Your task to perform on an android device: uninstall "Google Duo" Image 0: 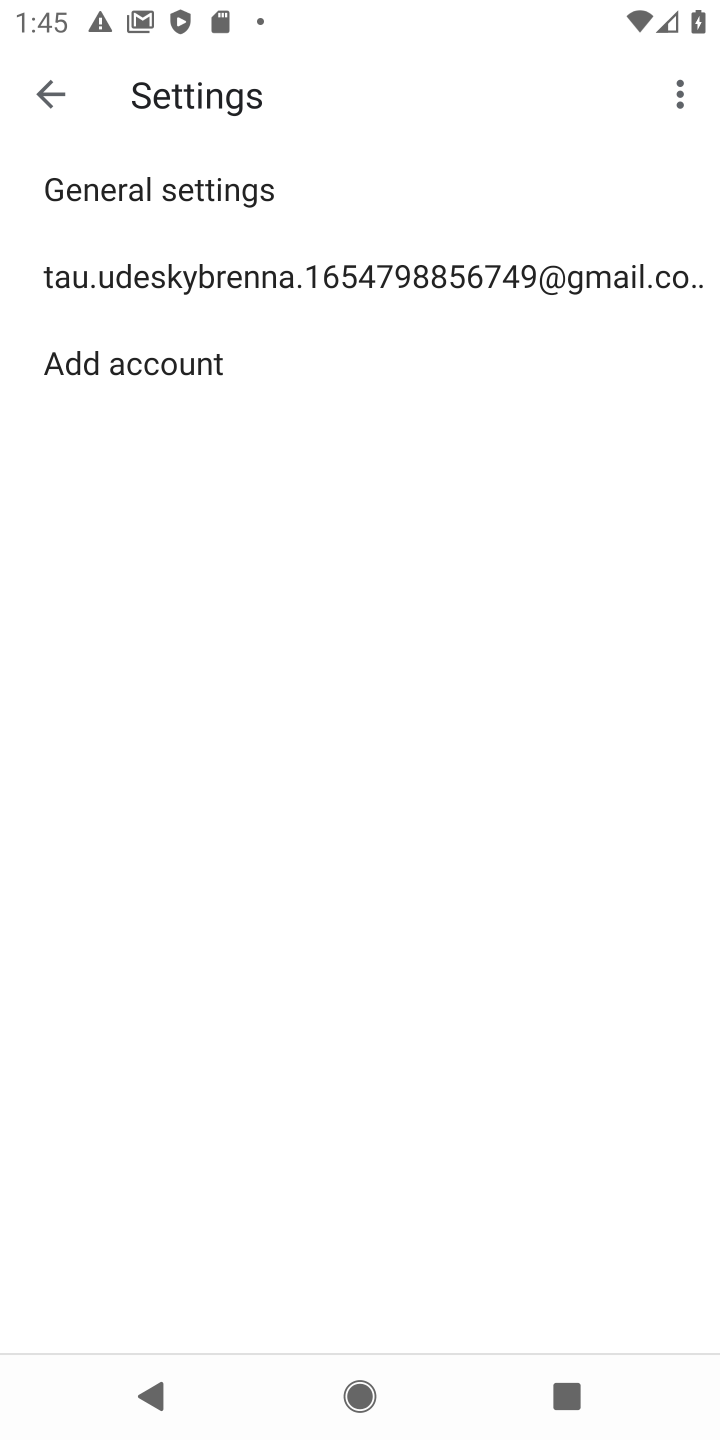
Step 0: press home button
Your task to perform on an android device: uninstall "Google Duo" Image 1: 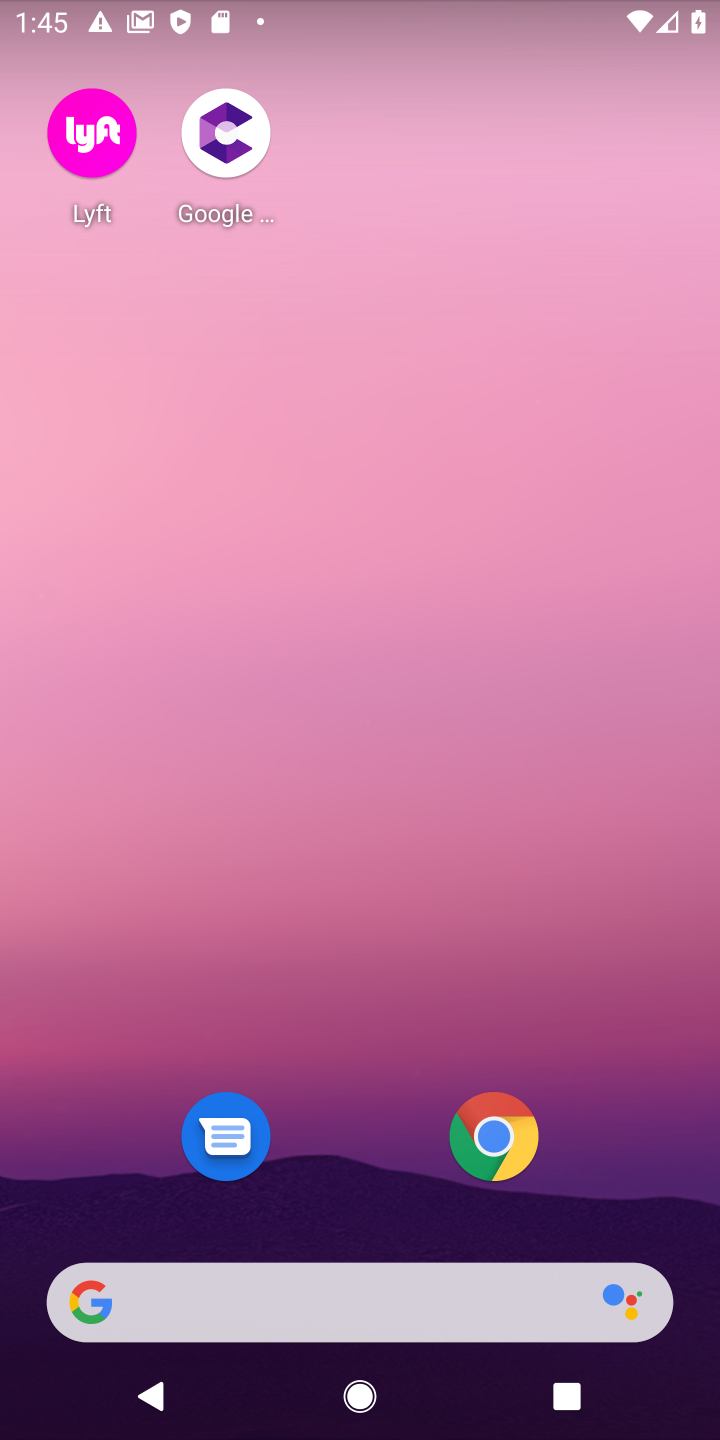
Step 1: drag from (357, 1062) to (359, 228)
Your task to perform on an android device: uninstall "Google Duo" Image 2: 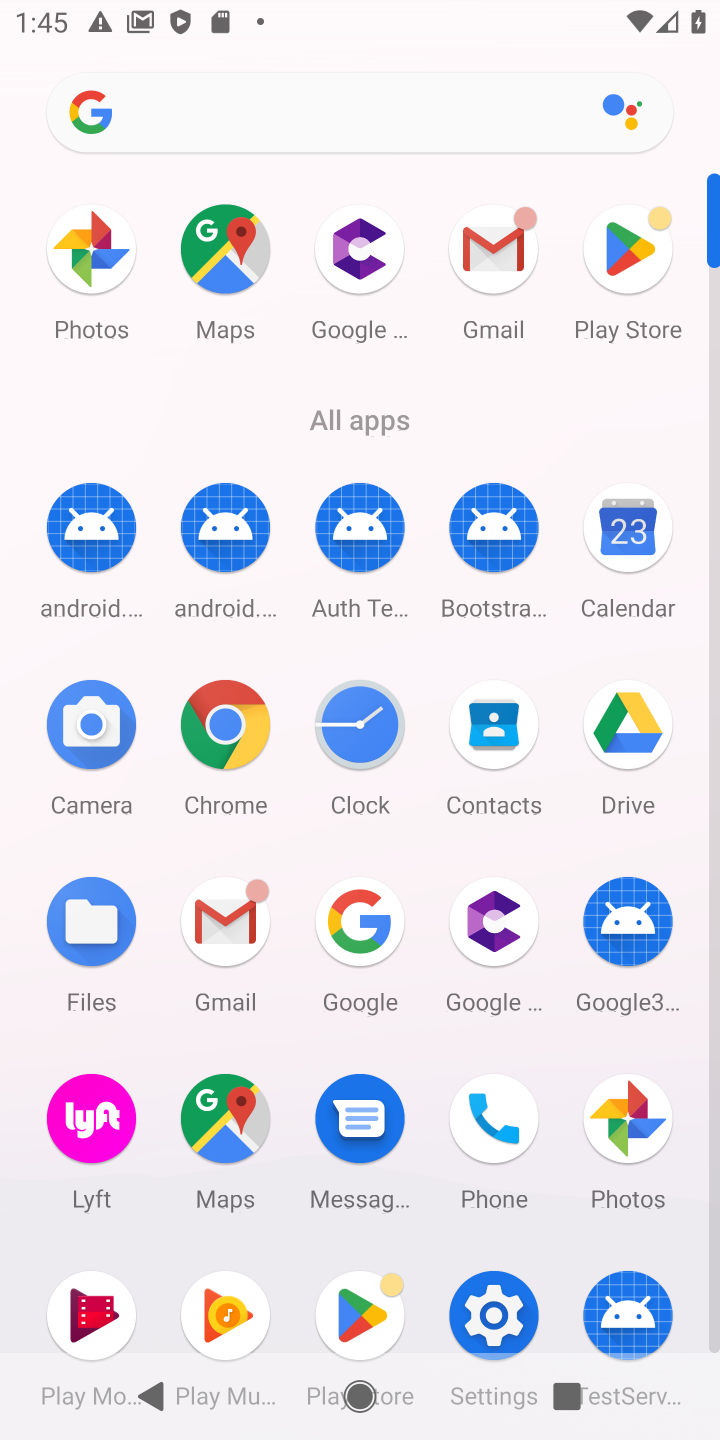
Step 2: click (629, 269)
Your task to perform on an android device: uninstall "Google Duo" Image 3: 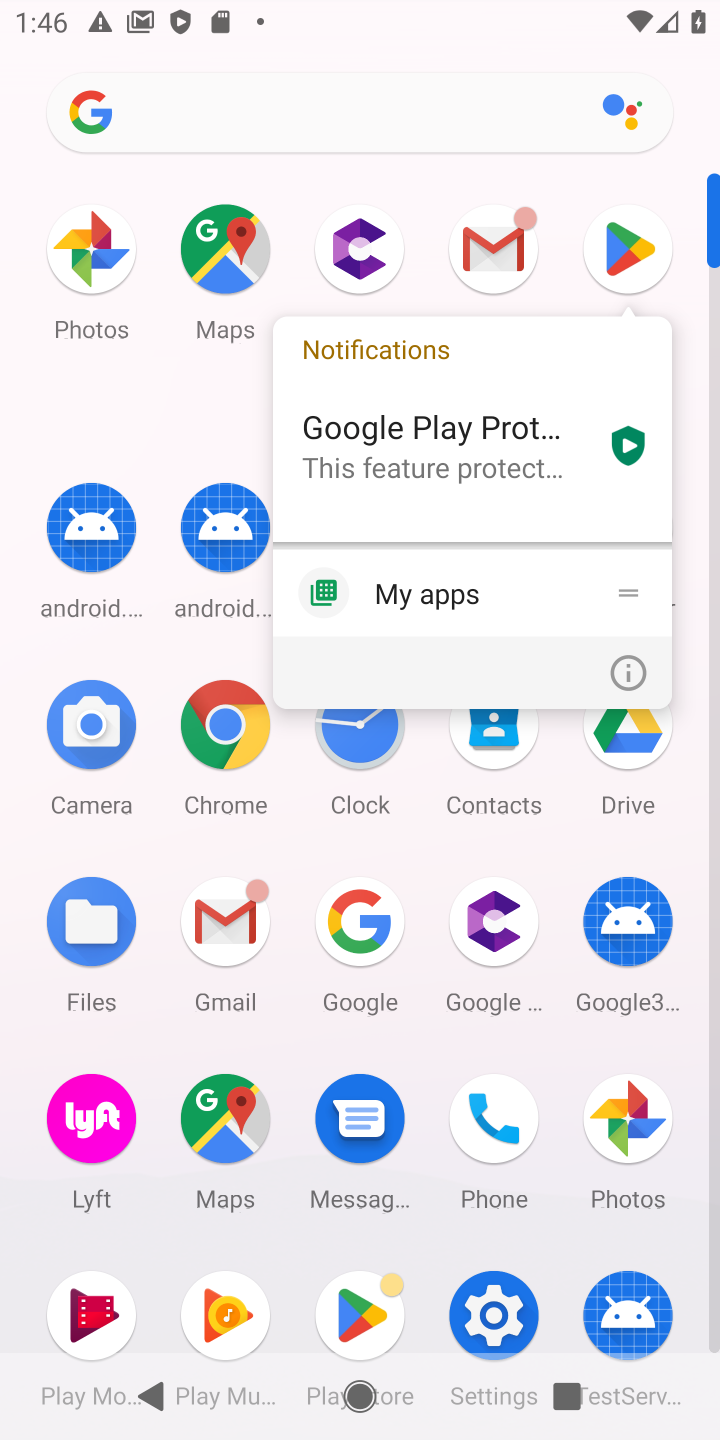
Step 3: click (587, 241)
Your task to perform on an android device: uninstall "Google Duo" Image 4: 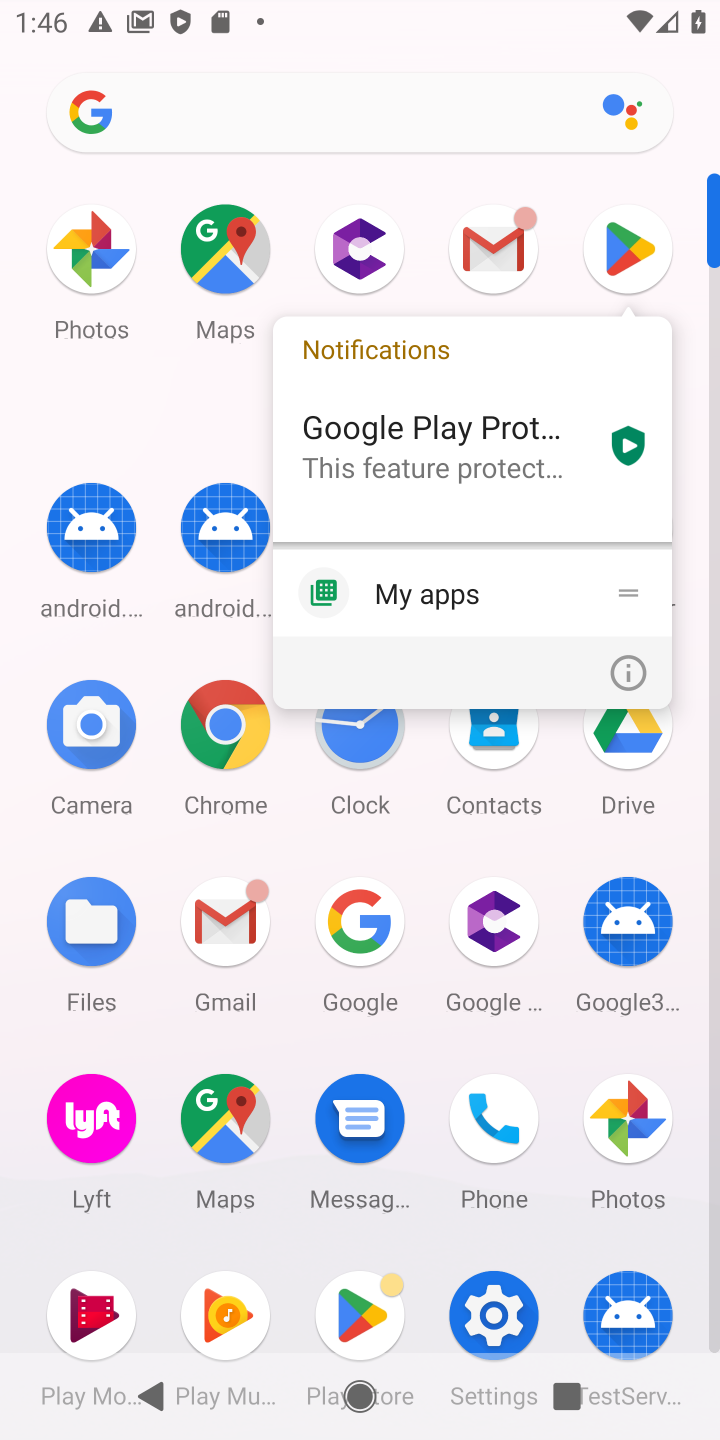
Step 4: click (613, 251)
Your task to perform on an android device: uninstall "Google Duo" Image 5: 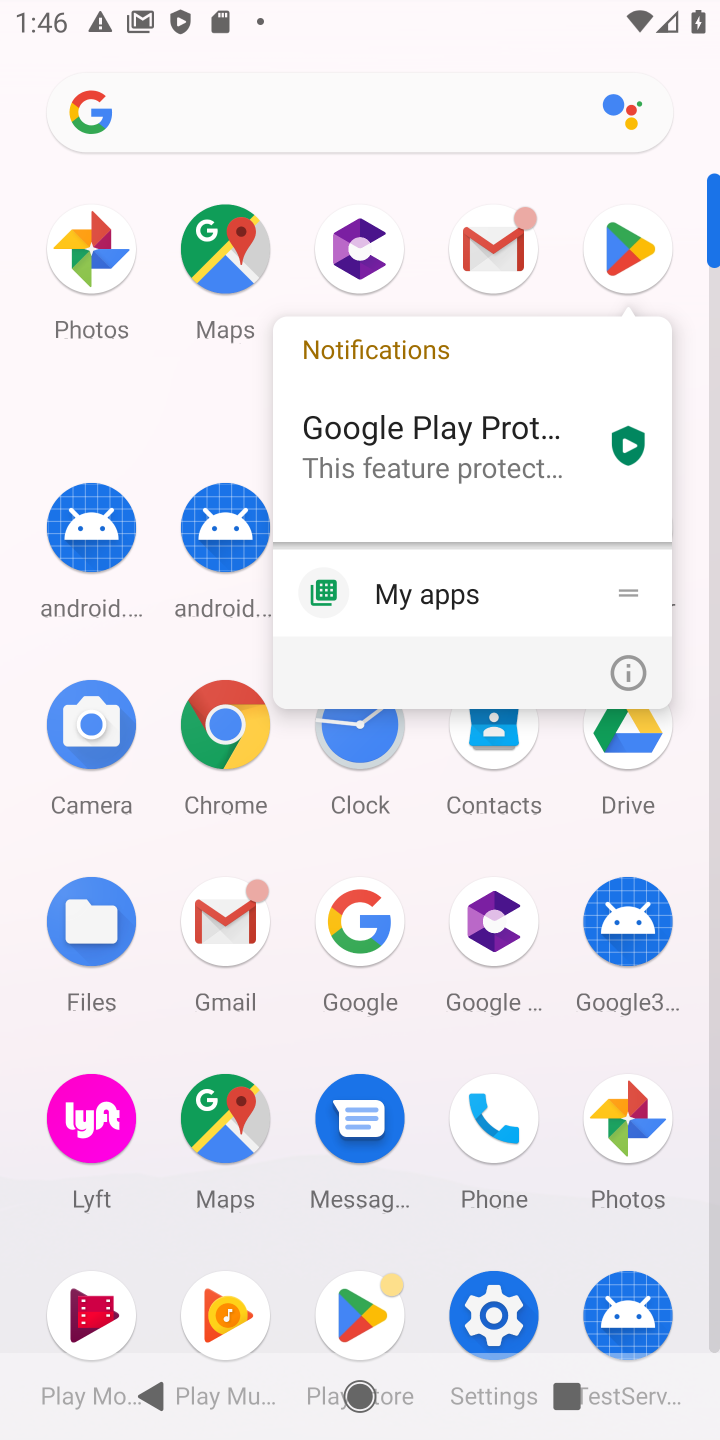
Step 5: click (622, 246)
Your task to perform on an android device: uninstall "Google Duo" Image 6: 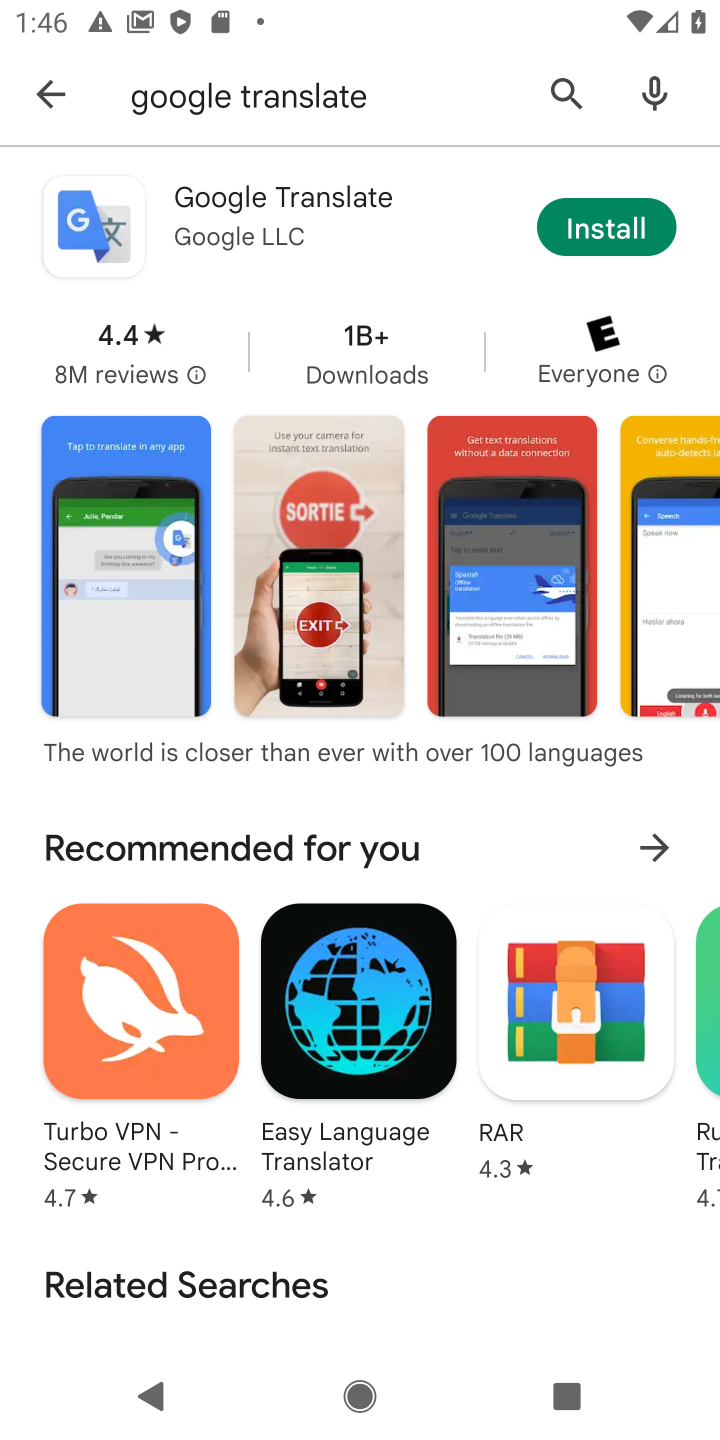
Step 6: click (519, 107)
Your task to perform on an android device: uninstall "Google Duo" Image 7: 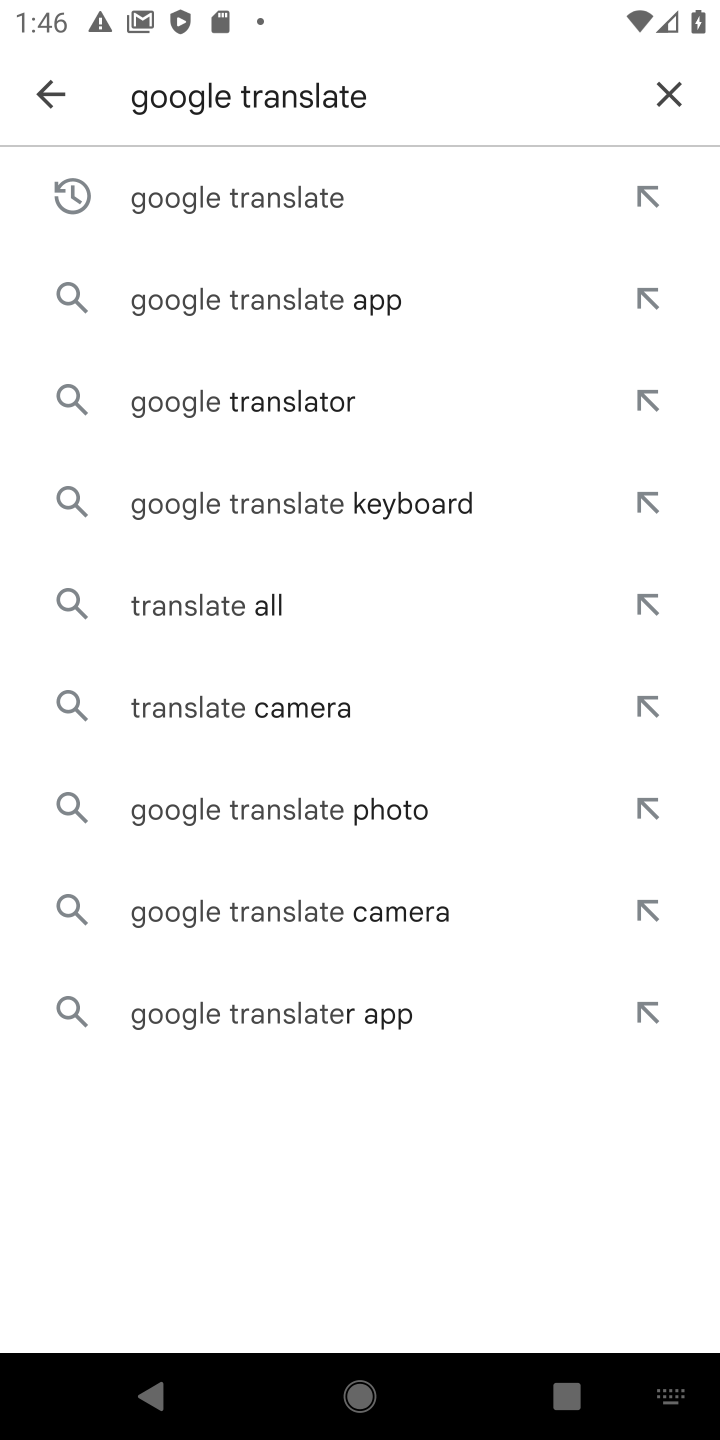
Step 7: click (651, 101)
Your task to perform on an android device: uninstall "Google Duo" Image 8: 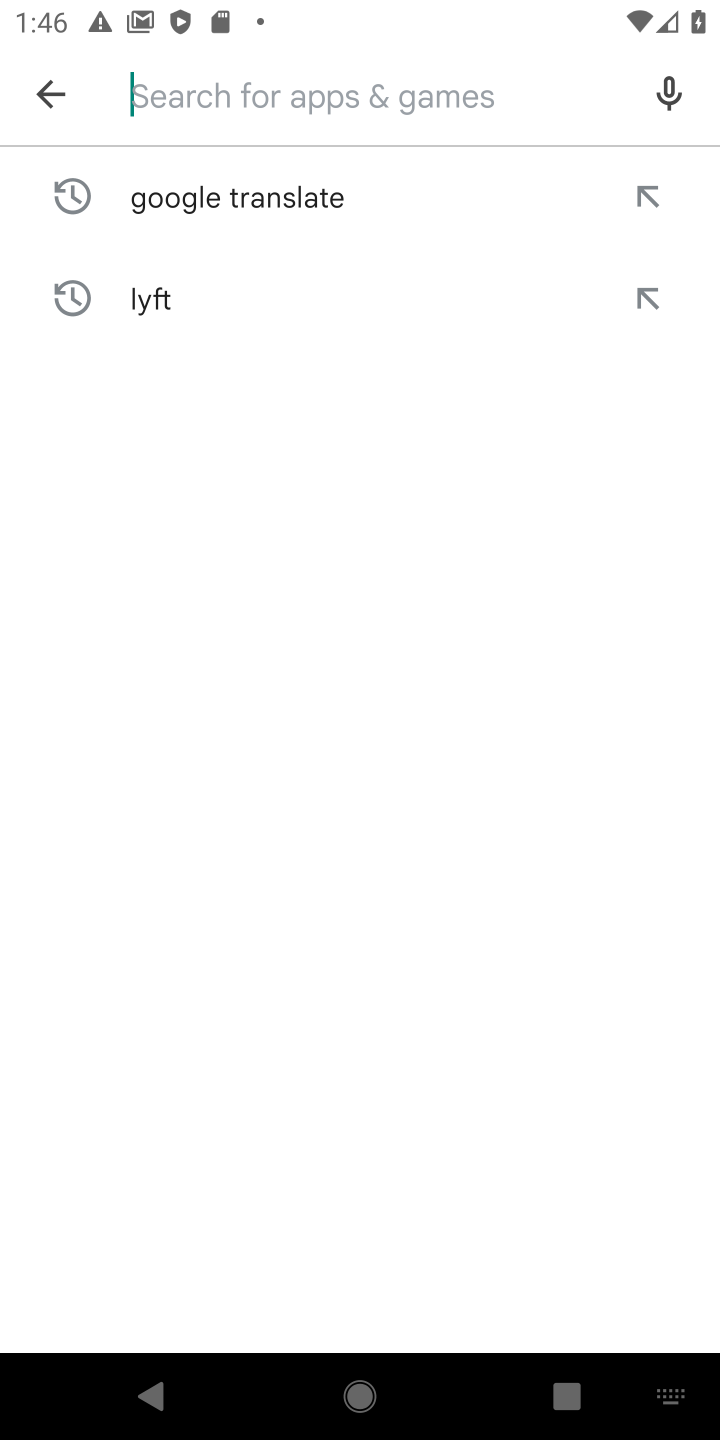
Step 8: type "Google Duo"
Your task to perform on an android device: uninstall "Google Duo" Image 9: 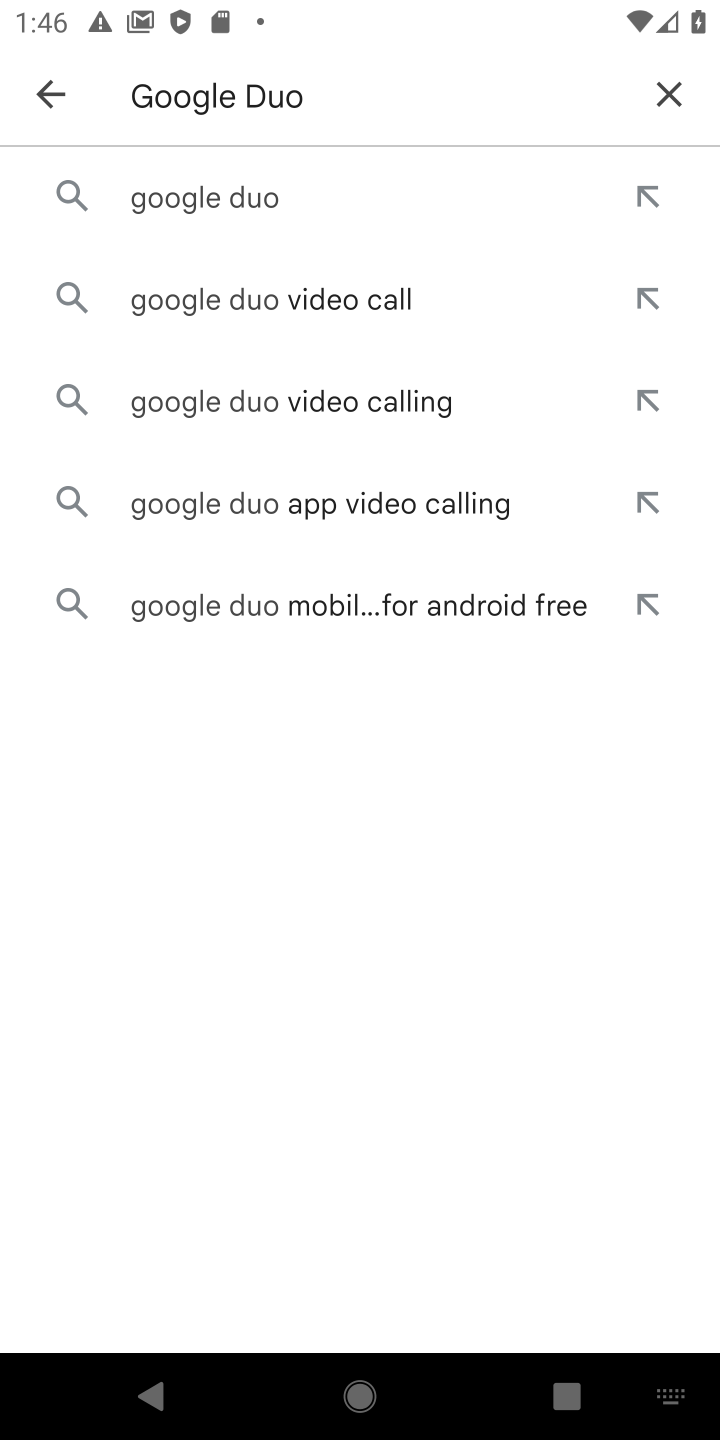
Step 9: click (378, 191)
Your task to perform on an android device: uninstall "Google Duo" Image 10: 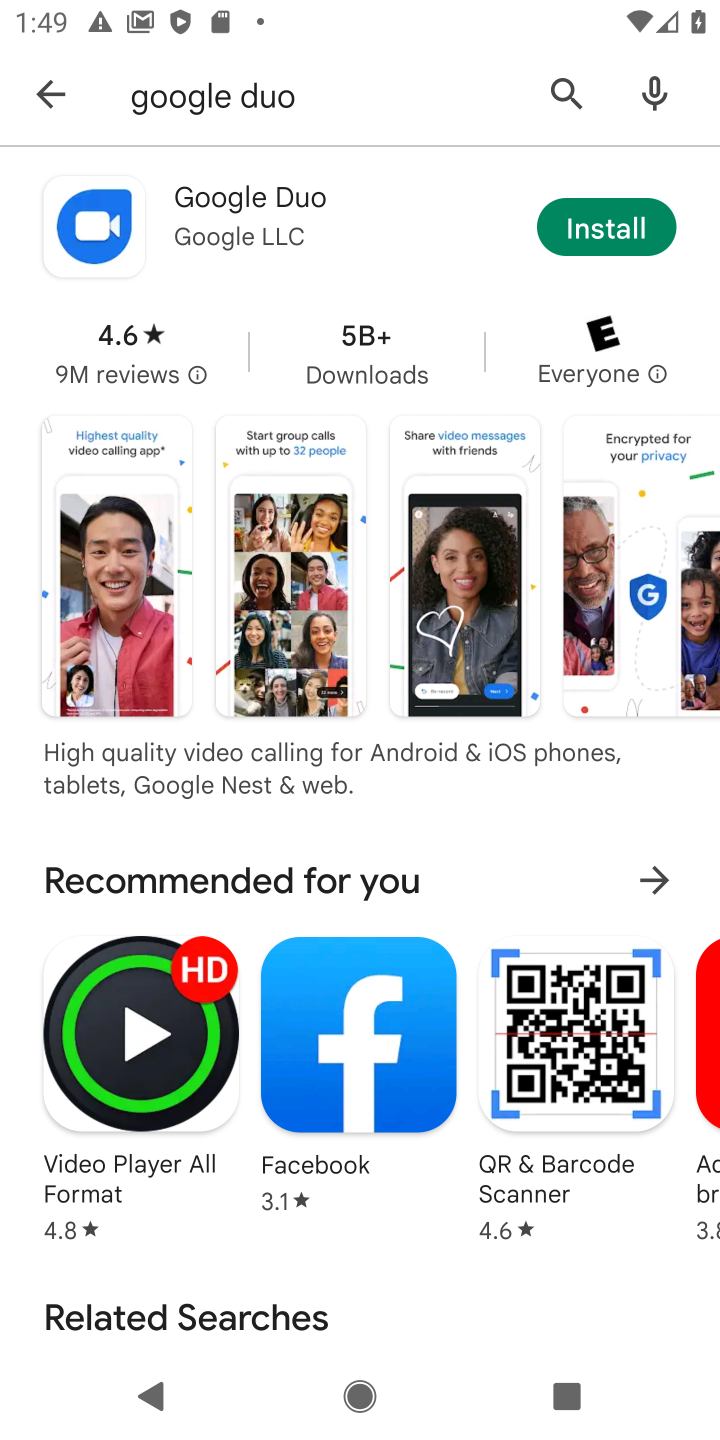
Step 10: task complete